Your task to perform on an android device: Open Reddit.com Image 0: 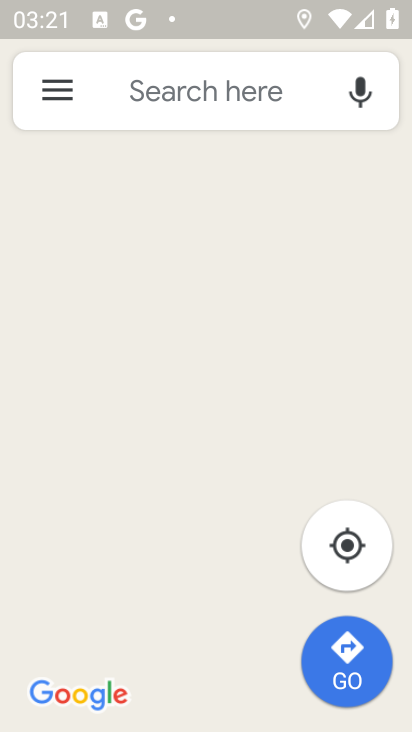
Step 0: press home button
Your task to perform on an android device: Open Reddit.com Image 1: 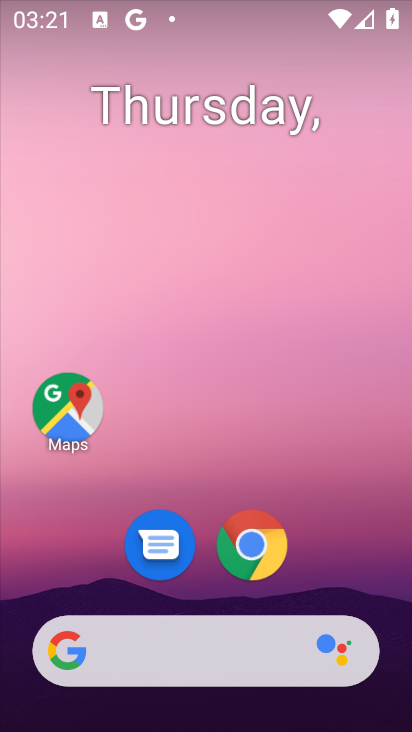
Step 1: click (212, 666)
Your task to perform on an android device: Open Reddit.com Image 2: 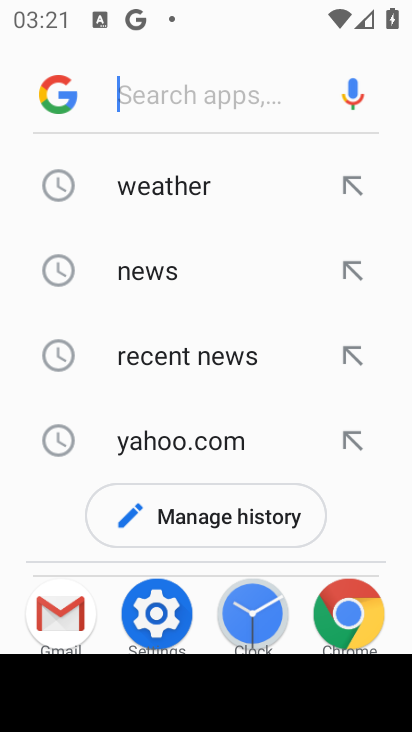
Step 2: type "reddit.com"
Your task to perform on an android device: Open Reddit.com Image 3: 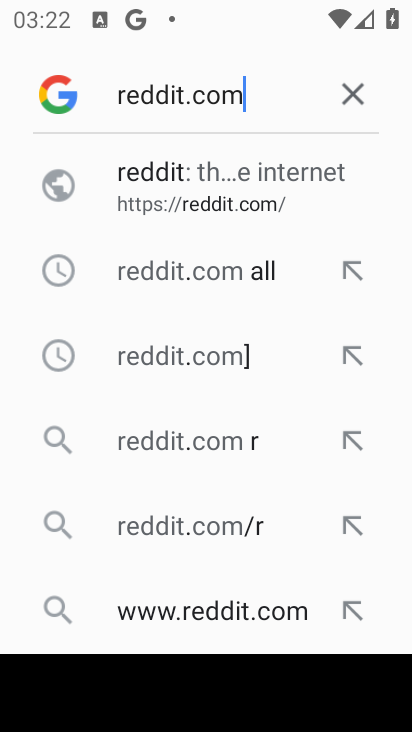
Step 3: click (235, 196)
Your task to perform on an android device: Open Reddit.com Image 4: 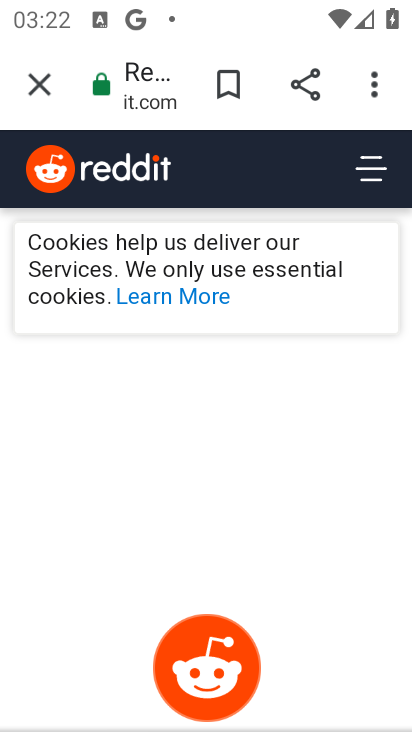
Step 4: task complete